Your task to perform on an android device: toggle pop-ups in chrome Image 0: 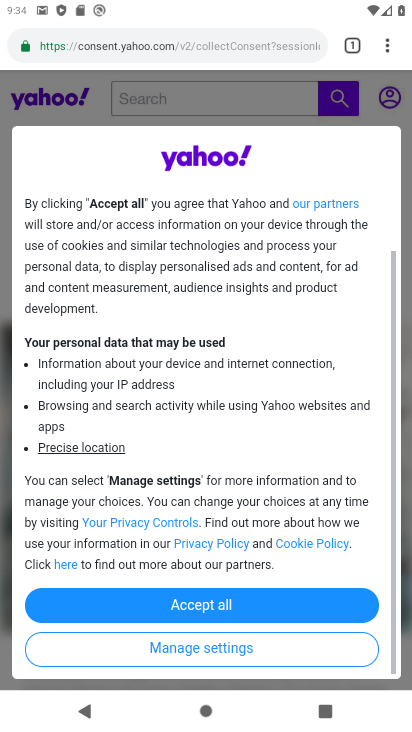
Step 0: drag from (238, 623) to (284, 0)
Your task to perform on an android device: toggle pop-ups in chrome Image 1: 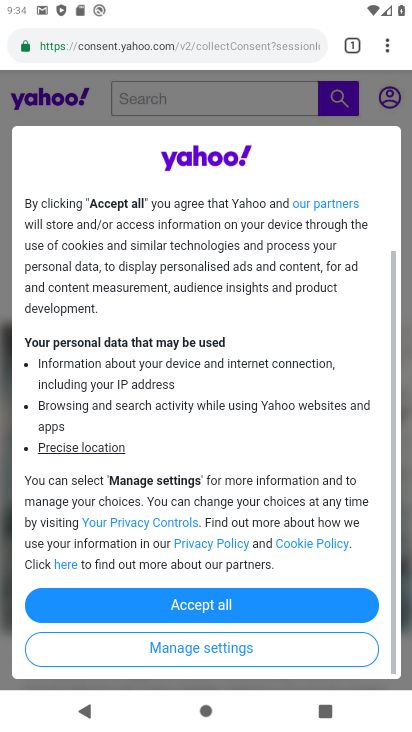
Step 1: click (395, 46)
Your task to perform on an android device: toggle pop-ups in chrome Image 2: 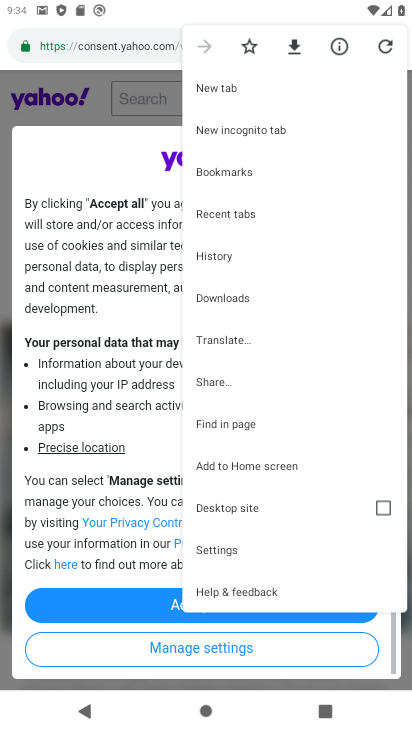
Step 2: click (224, 557)
Your task to perform on an android device: toggle pop-ups in chrome Image 3: 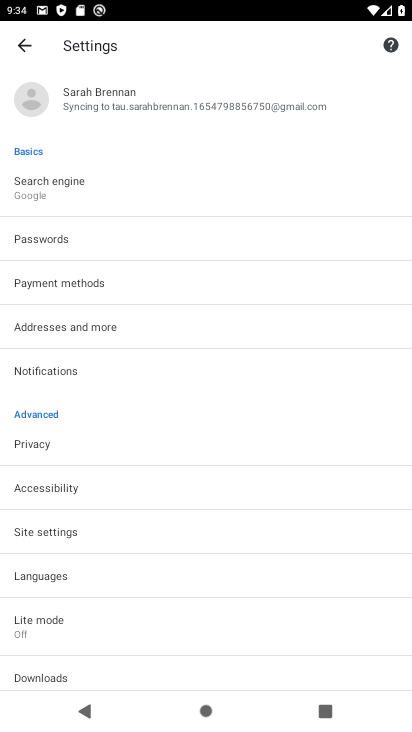
Step 3: click (66, 531)
Your task to perform on an android device: toggle pop-ups in chrome Image 4: 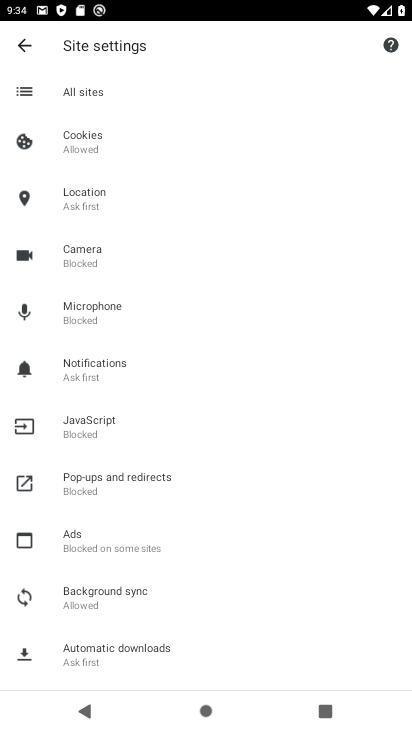
Step 4: click (107, 477)
Your task to perform on an android device: toggle pop-ups in chrome Image 5: 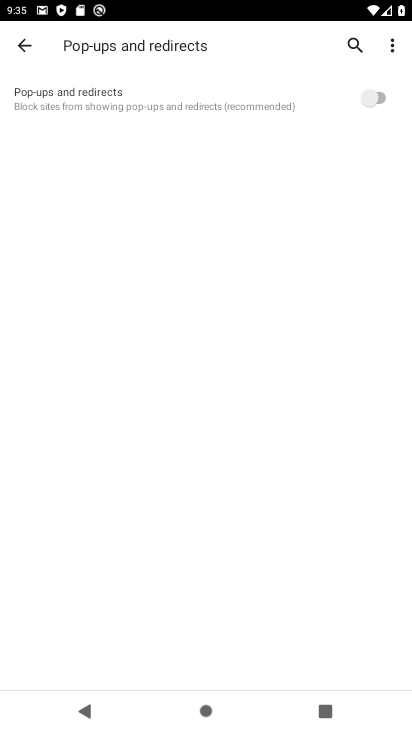
Step 5: click (392, 101)
Your task to perform on an android device: toggle pop-ups in chrome Image 6: 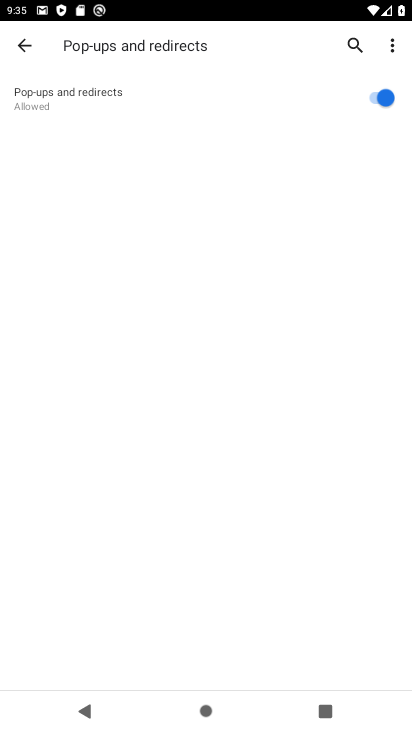
Step 6: task complete